Your task to perform on an android device: Find coffee shops on Maps Image 0: 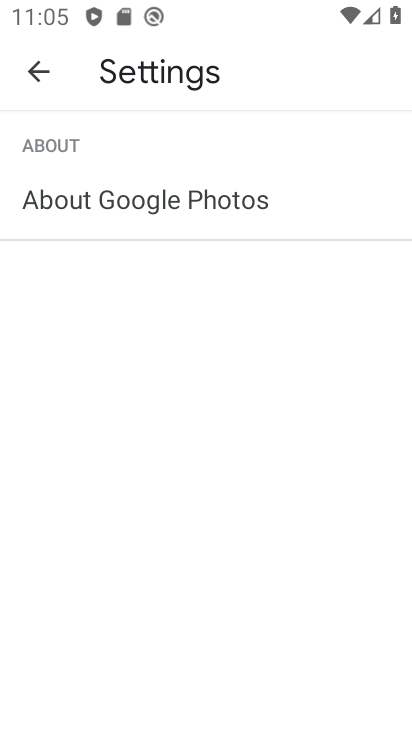
Step 0: press home button
Your task to perform on an android device: Find coffee shops on Maps Image 1: 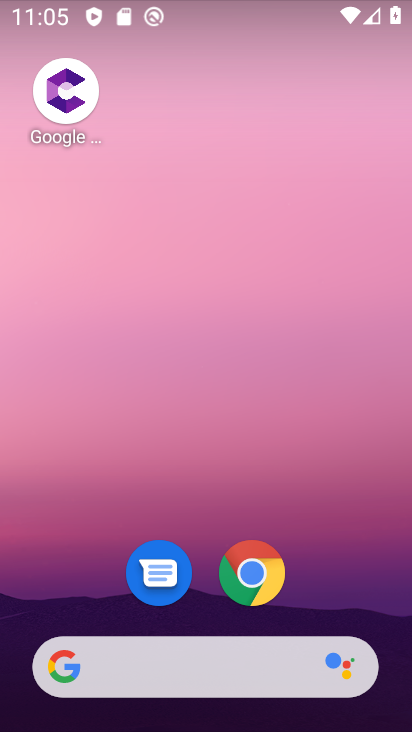
Step 1: drag from (297, 577) to (314, 303)
Your task to perform on an android device: Find coffee shops on Maps Image 2: 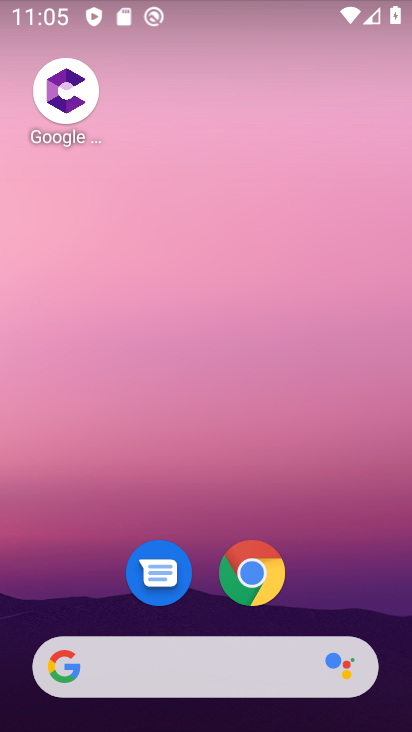
Step 2: drag from (289, 633) to (367, 174)
Your task to perform on an android device: Find coffee shops on Maps Image 3: 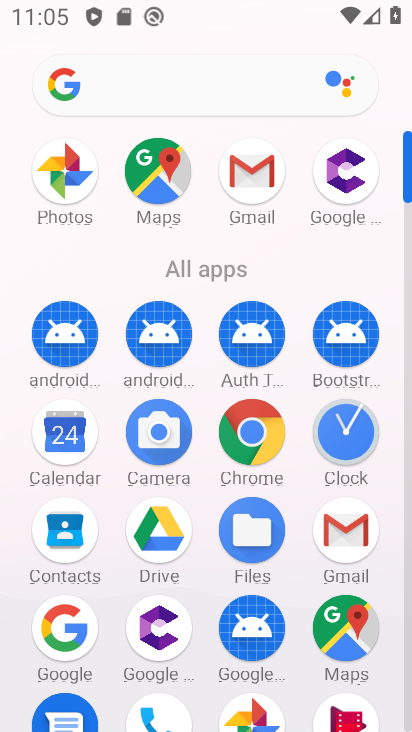
Step 3: click (160, 175)
Your task to perform on an android device: Find coffee shops on Maps Image 4: 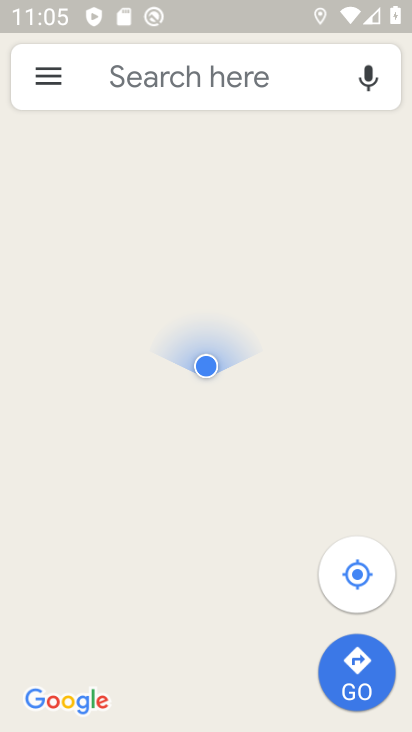
Step 4: click (207, 55)
Your task to perform on an android device: Find coffee shops on Maps Image 5: 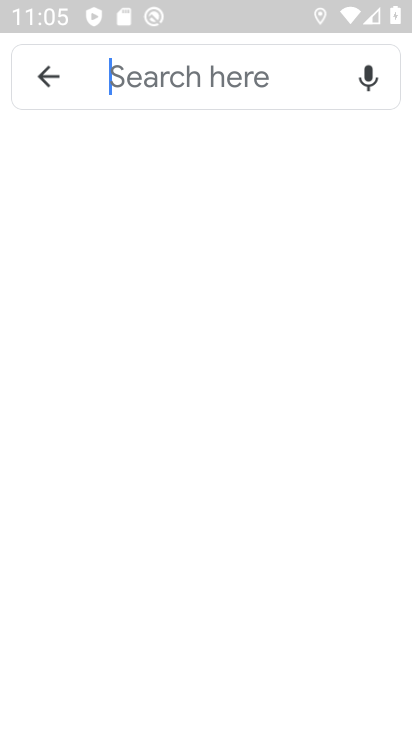
Step 5: type "coffee shops"
Your task to perform on an android device: Find coffee shops on Maps Image 6: 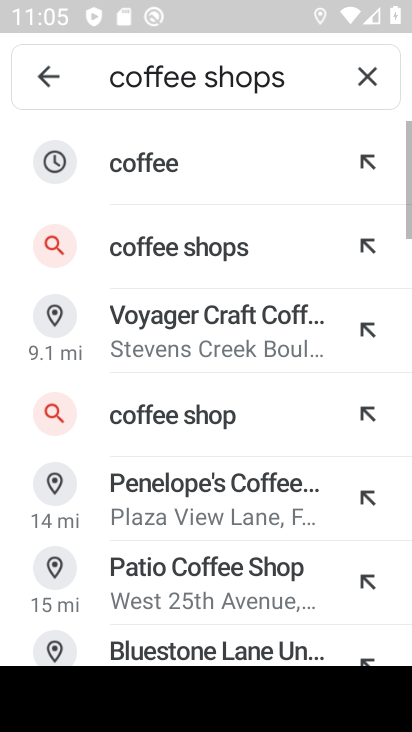
Step 6: click (163, 175)
Your task to perform on an android device: Find coffee shops on Maps Image 7: 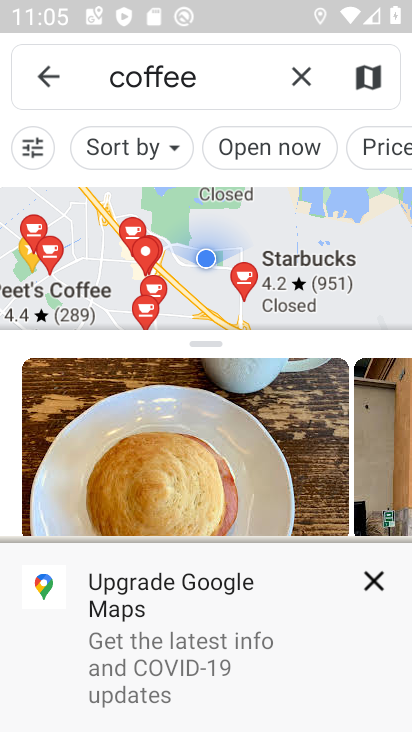
Step 7: task complete